Your task to perform on an android device: What's the weather going to be tomorrow? Image 0: 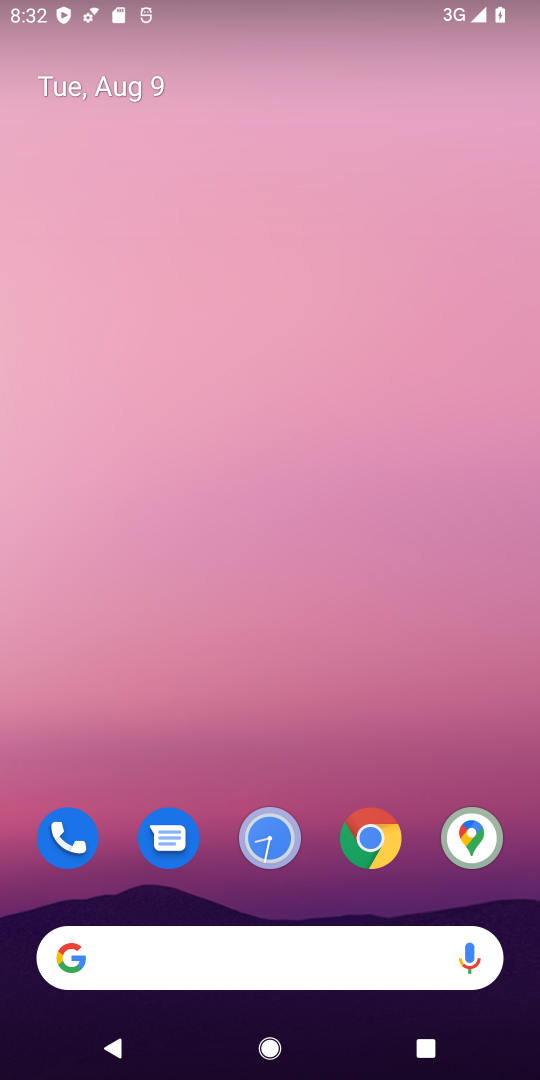
Step 0: drag from (265, 893) to (255, 120)
Your task to perform on an android device: What's the weather going to be tomorrow? Image 1: 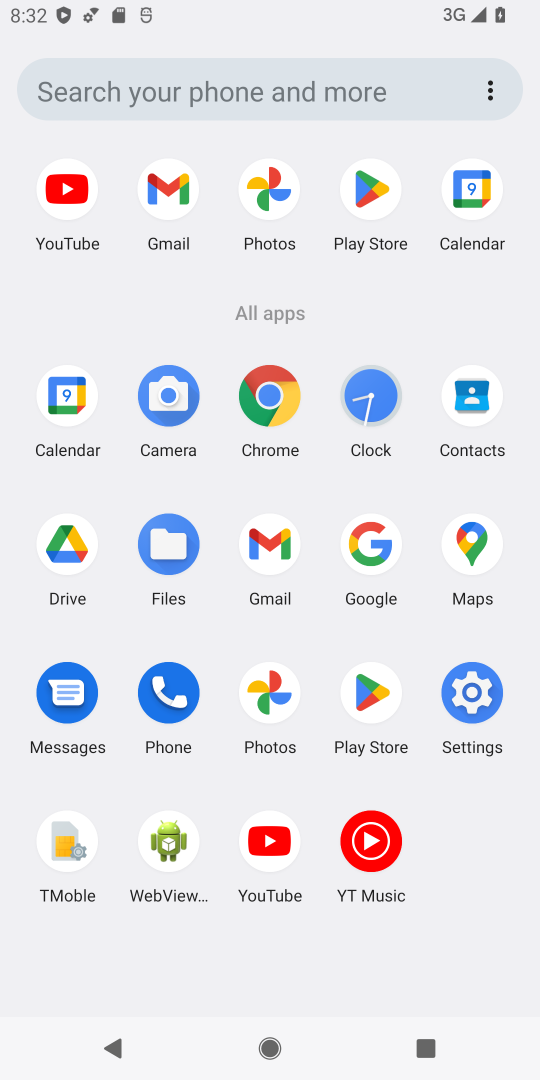
Step 1: click (270, 392)
Your task to perform on an android device: What's the weather going to be tomorrow? Image 2: 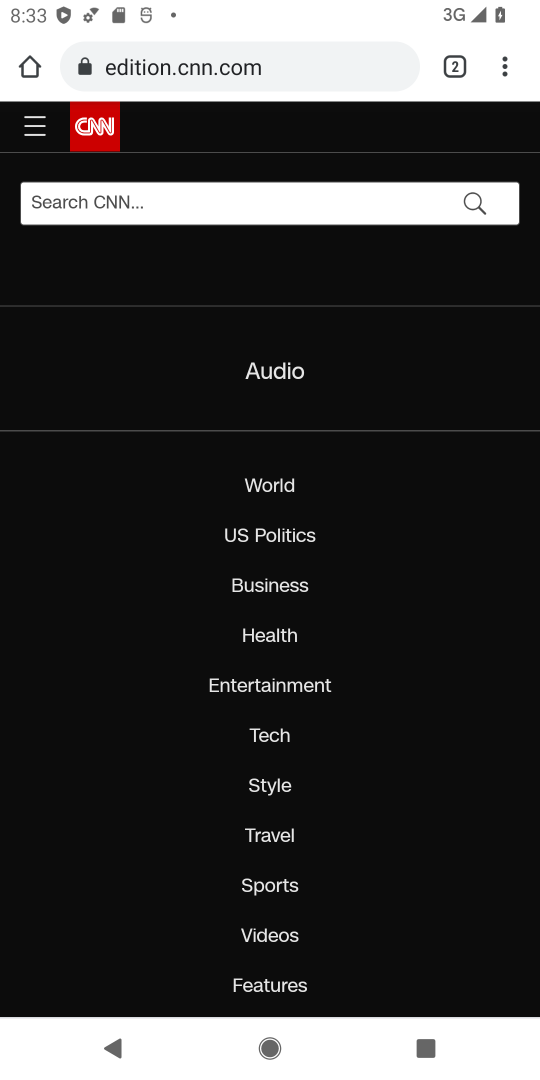
Step 2: click (244, 86)
Your task to perform on an android device: What's the weather going to be tomorrow? Image 3: 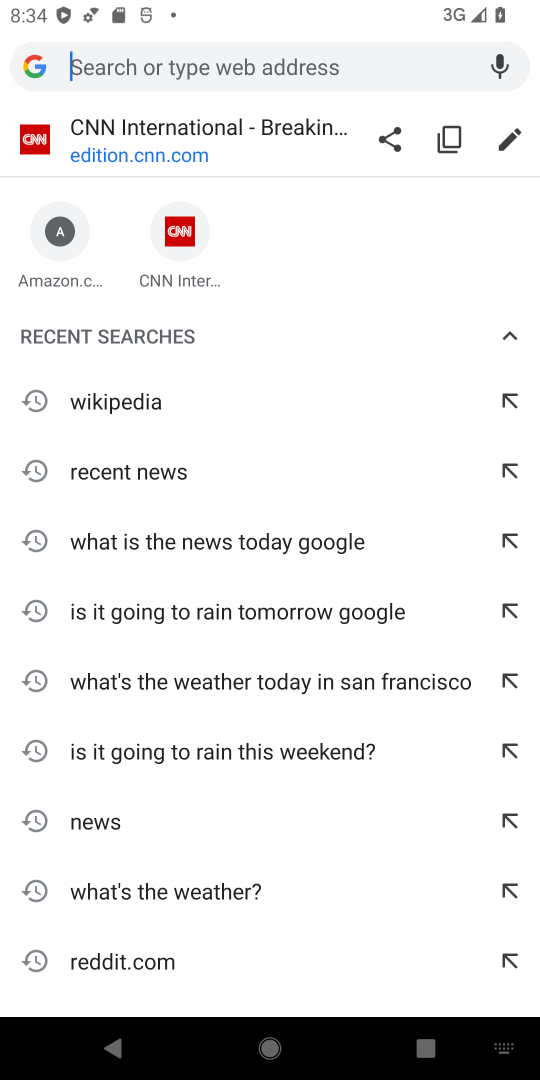
Step 3: type "weather tomorrow"
Your task to perform on an android device: What's the weather going to be tomorrow? Image 4: 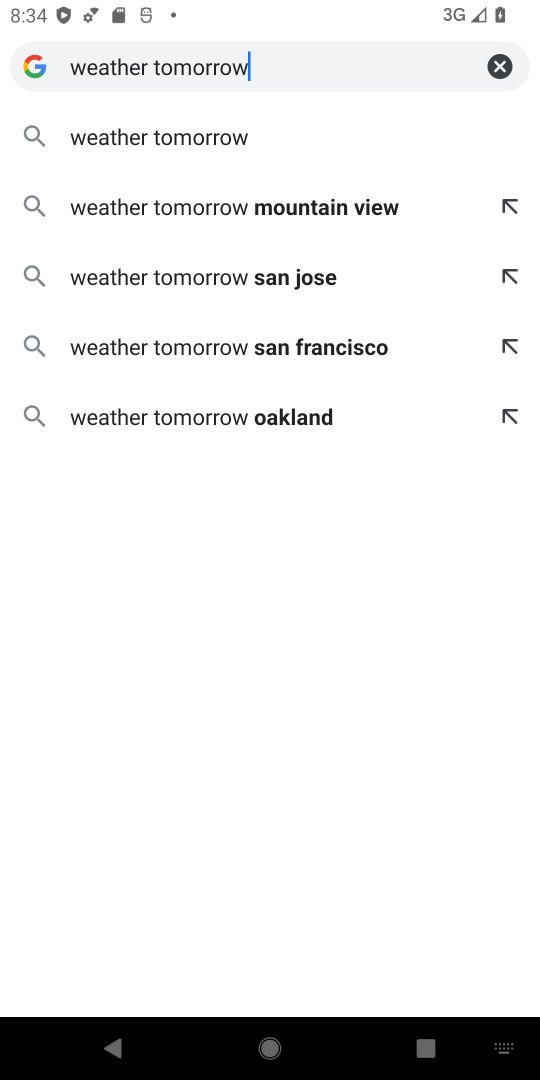
Step 4: click (142, 141)
Your task to perform on an android device: What's the weather going to be tomorrow? Image 5: 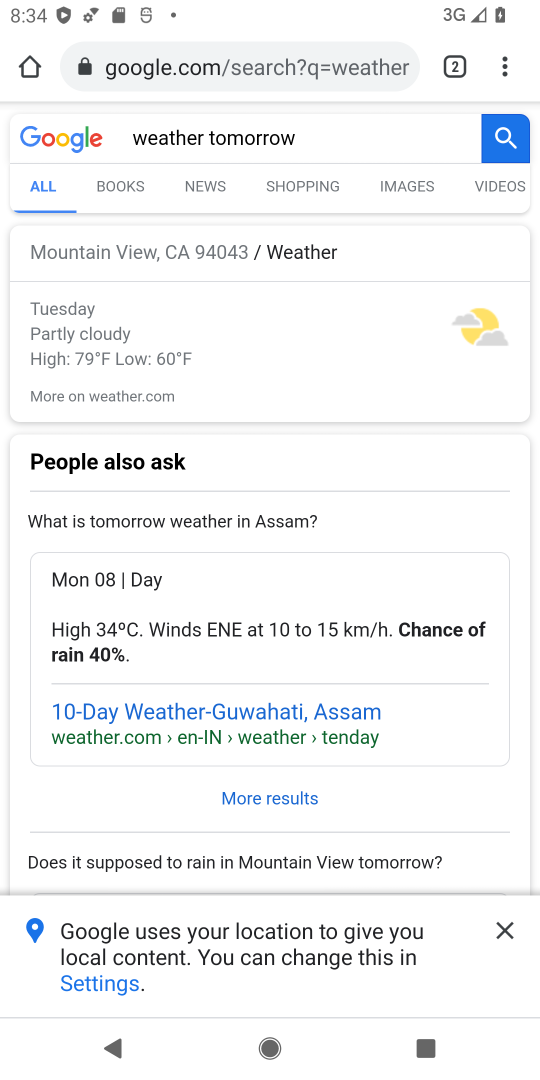
Step 5: task complete